Your task to perform on an android device: turn on notifications settings in the gmail app Image 0: 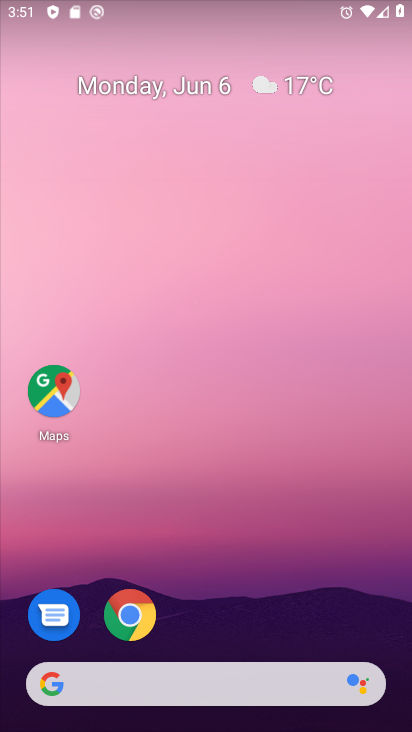
Step 0: drag from (213, 601) to (167, 19)
Your task to perform on an android device: turn on notifications settings in the gmail app Image 1: 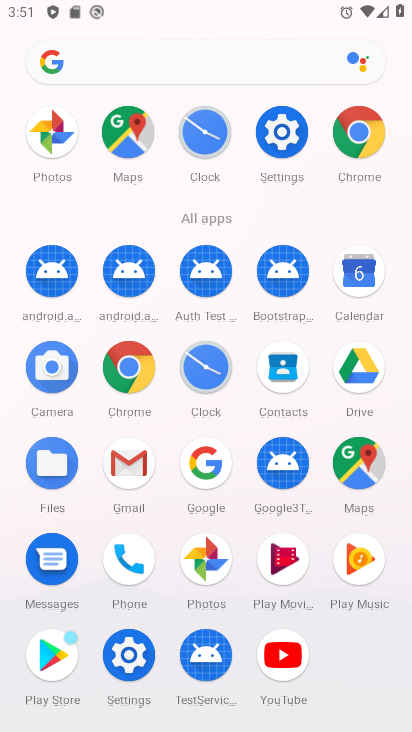
Step 1: drag from (2, 602) to (17, 271)
Your task to perform on an android device: turn on notifications settings in the gmail app Image 2: 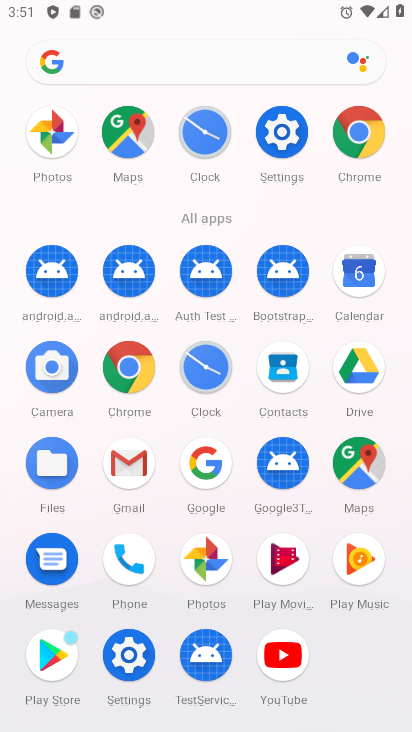
Step 2: click (128, 458)
Your task to perform on an android device: turn on notifications settings in the gmail app Image 3: 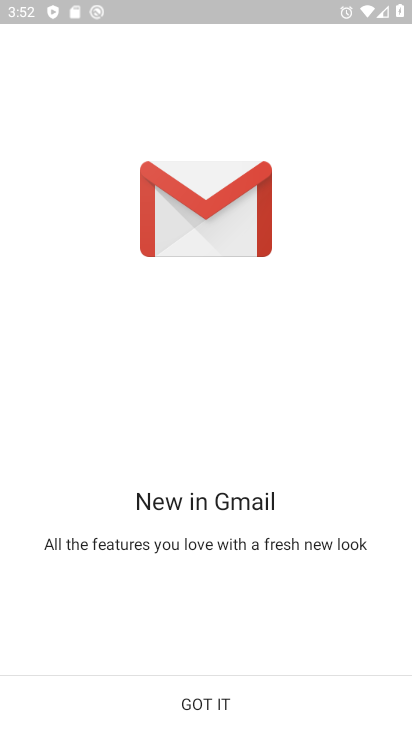
Step 3: click (238, 695)
Your task to perform on an android device: turn on notifications settings in the gmail app Image 4: 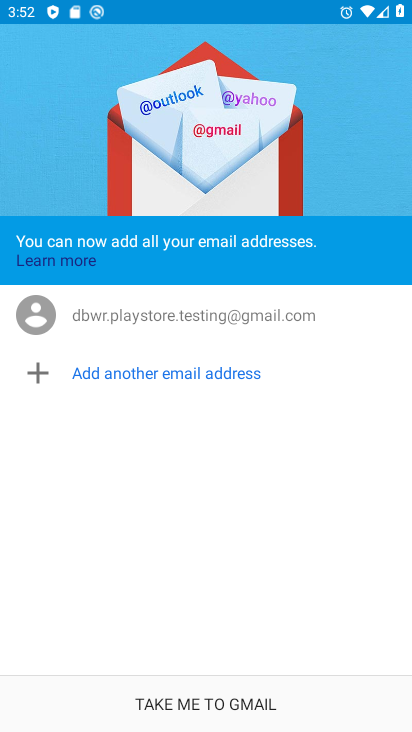
Step 4: click (238, 695)
Your task to perform on an android device: turn on notifications settings in the gmail app Image 5: 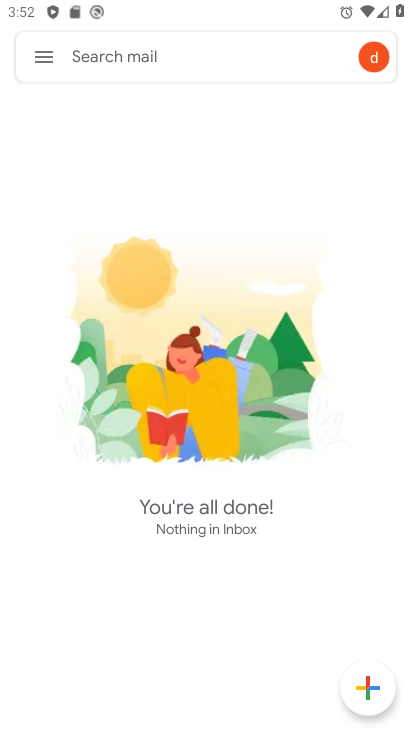
Step 5: click (45, 50)
Your task to perform on an android device: turn on notifications settings in the gmail app Image 6: 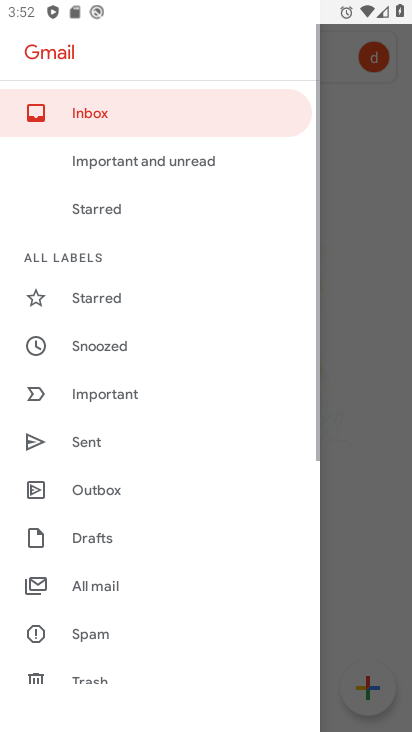
Step 6: drag from (146, 527) to (158, 182)
Your task to perform on an android device: turn on notifications settings in the gmail app Image 7: 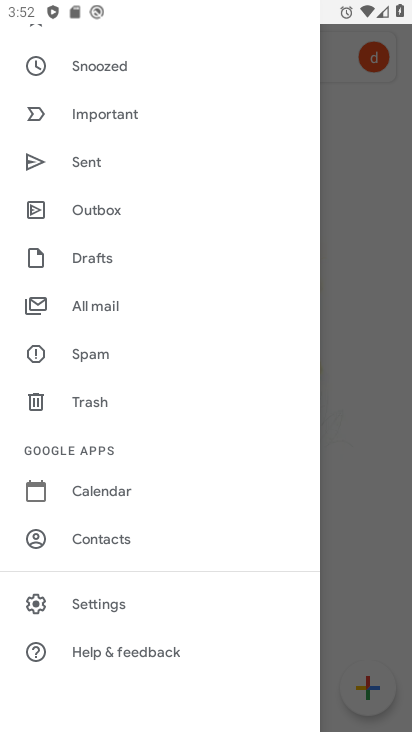
Step 7: click (99, 604)
Your task to perform on an android device: turn on notifications settings in the gmail app Image 8: 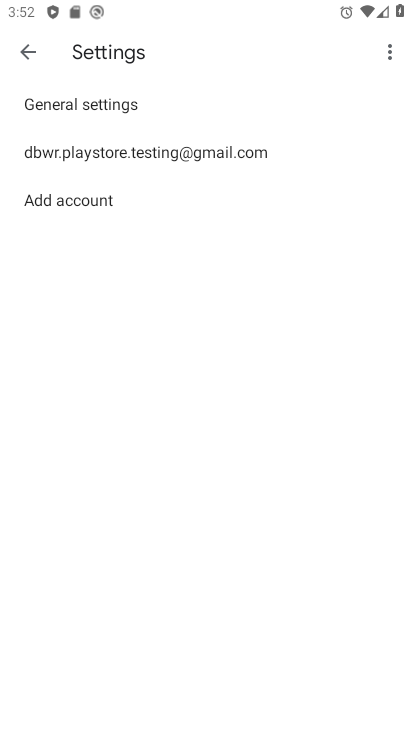
Step 8: click (128, 141)
Your task to perform on an android device: turn on notifications settings in the gmail app Image 9: 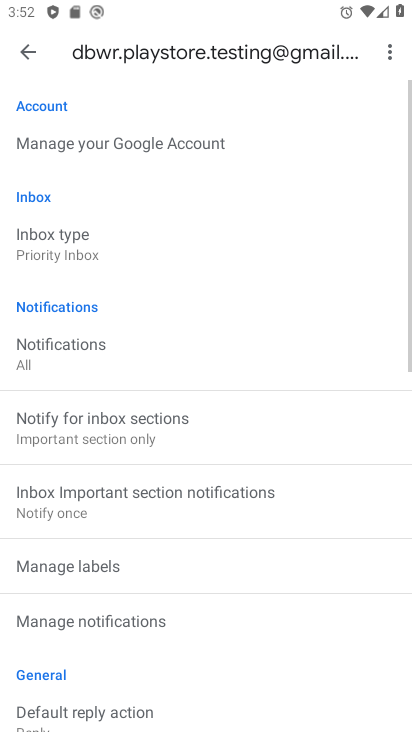
Step 9: drag from (274, 588) to (257, 208)
Your task to perform on an android device: turn on notifications settings in the gmail app Image 10: 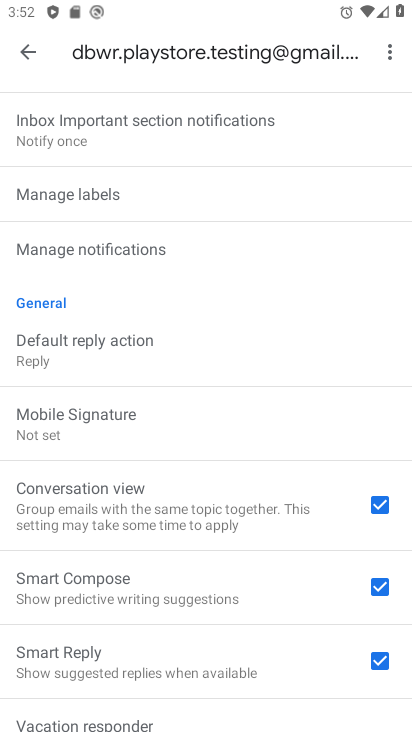
Step 10: click (115, 230)
Your task to perform on an android device: turn on notifications settings in the gmail app Image 11: 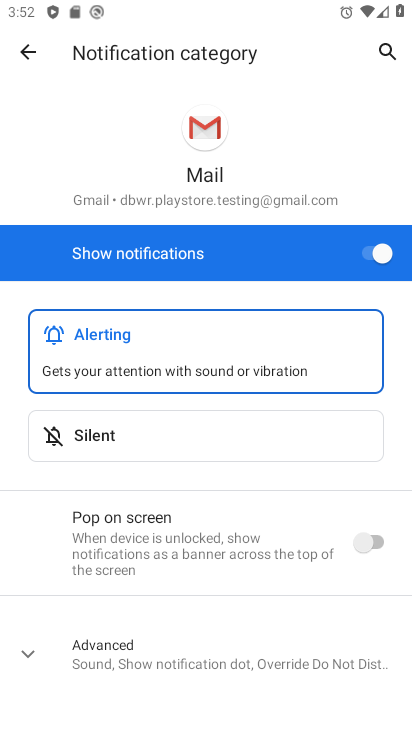
Step 11: click (44, 639)
Your task to perform on an android device: turn on notifications settings in the gmail app Image 12: 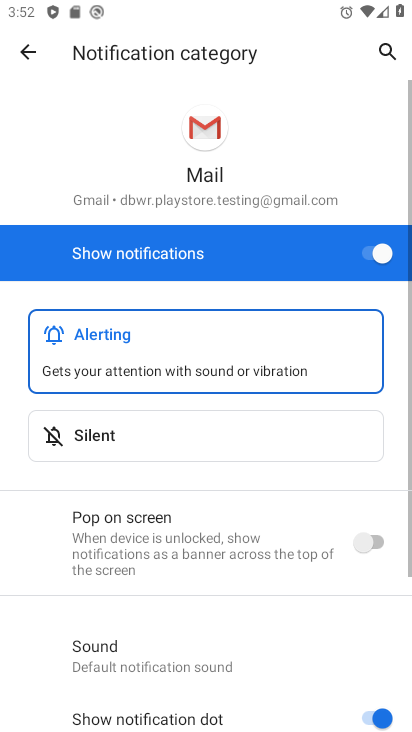
Step 12: task complete